Your task to perform on an android device: read, delete, or share a saved page in the chrome app Image 0: 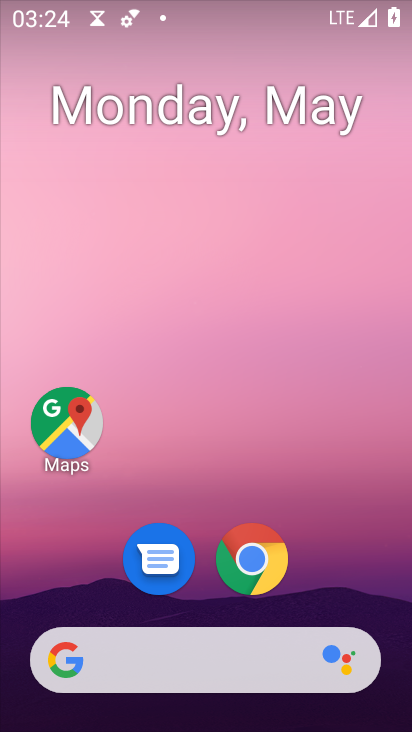
Step 0: drag from (303, 596) to (306, 195)
Your task to perform on an android device: read, delete, or share a saved page in the chrome app Image 1: 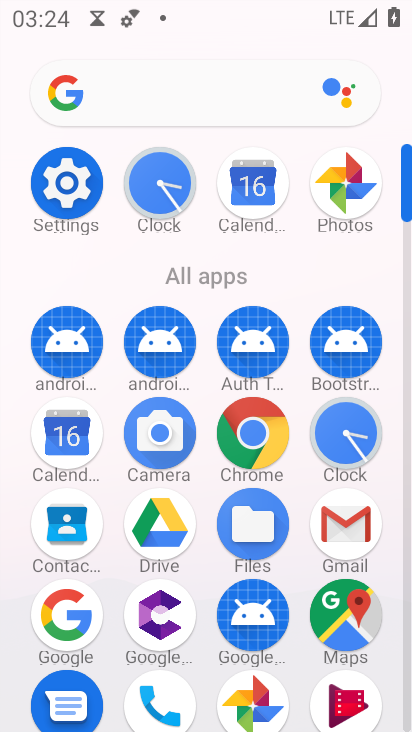
Step 1: click (245, 418)
Your task to perform on an android device: read, delete, or share a saved page in the chrome app Image 2: 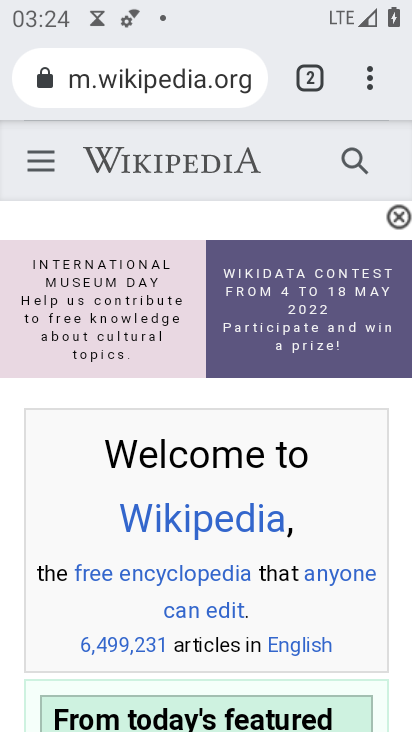
Step 2: click (370, 63)
Your task to perform on an android device: read, delete, or share a saved page in the chrome app Image 3: 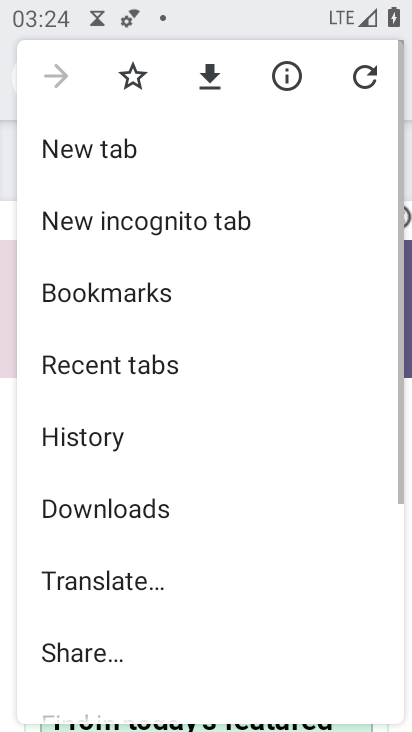
Step 3: click (107, 510)
Your task to perform on an android device: read, delete, or share a saved page in the chrome app Image 4: 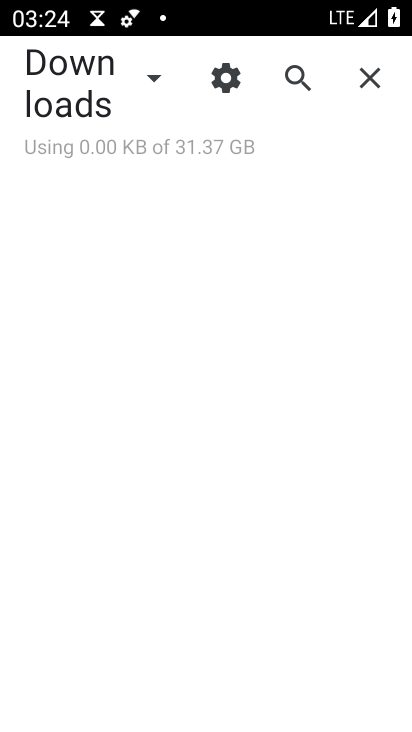
Step 4: click (132, 70)
Your task to perform on an android device: read, delete, or share a saved page in the chrome app Image 5: 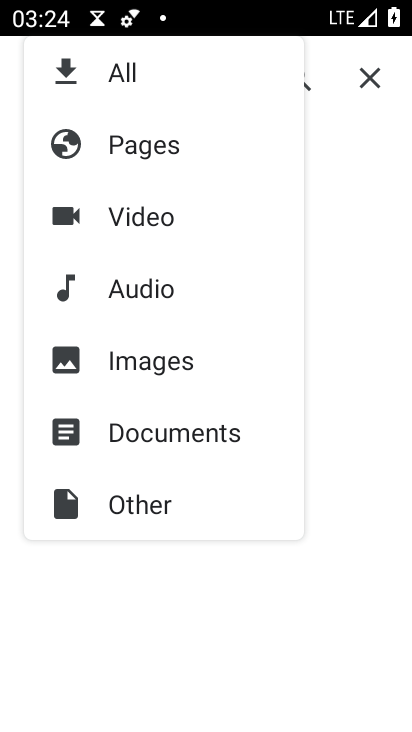
Step 5: click (136, 145)
Your task to perform on an android device: read, delete, or share a saved page in the chrome app Image 6: 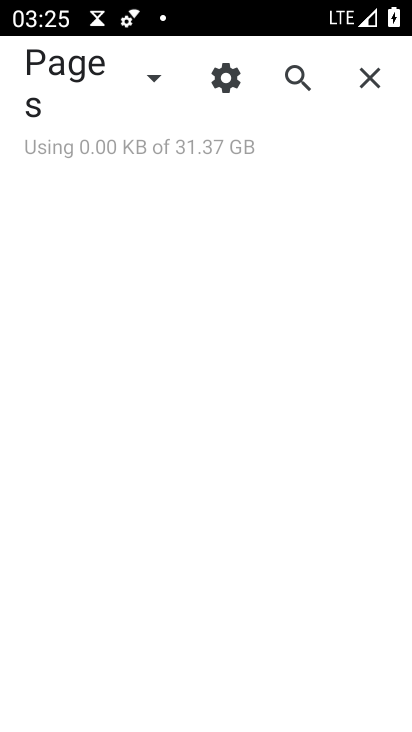
Step 6: task complete